Your task to perform on an android device: delete browsing data in the chrome app Image 0: 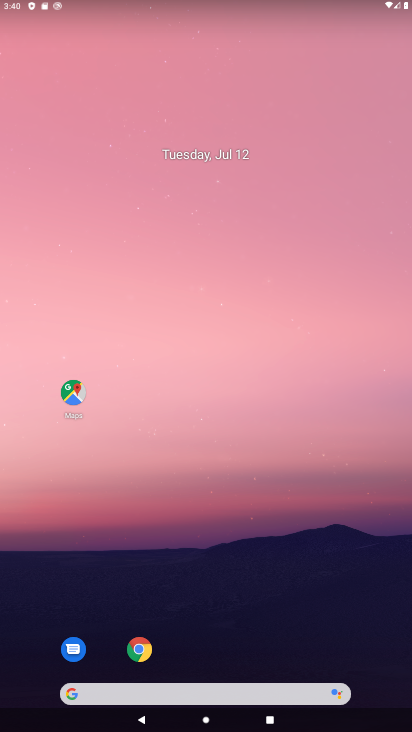
Step 0: click (139, 643)
Your task to perform on an android device: delete browsing data in the chrome app Image 1: 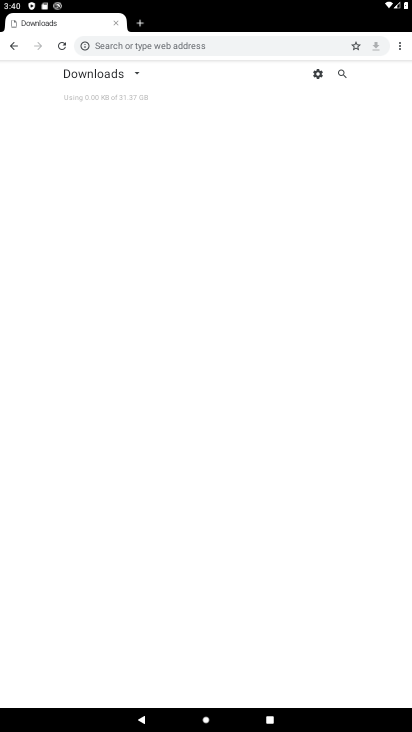
Step 1: click (398, 47)
Your task to perform on an android device: delete browsing data in the chrome app Image 2: 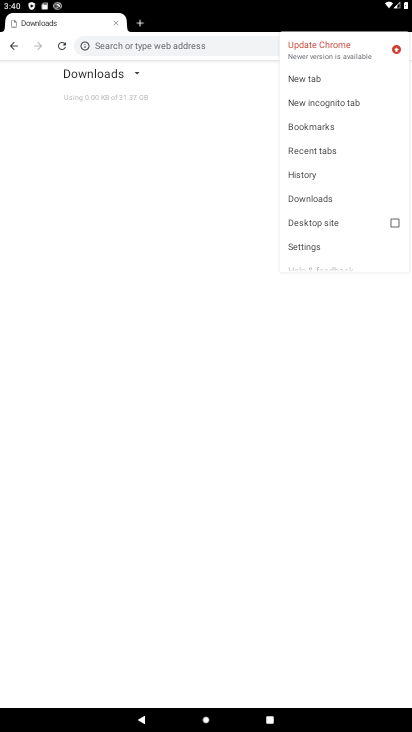
Step 2: click (316, 173)
Your task to perform on an android device: delete browsing data in the chrome app Image 3: 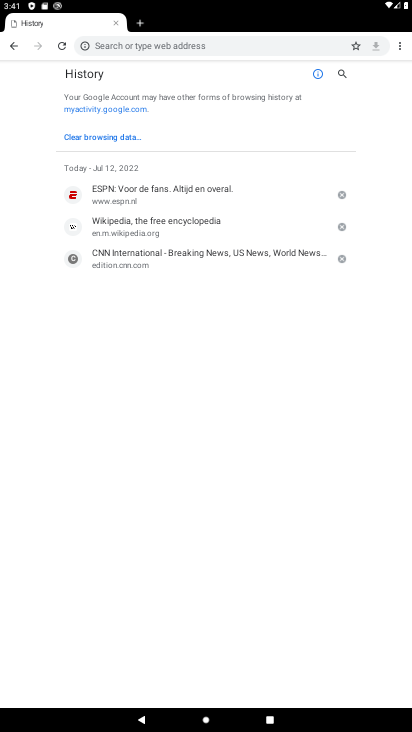
Step 3: click (107, 135)
Your task to perform on an android device: delete browsing data in the chrome app Image 4: 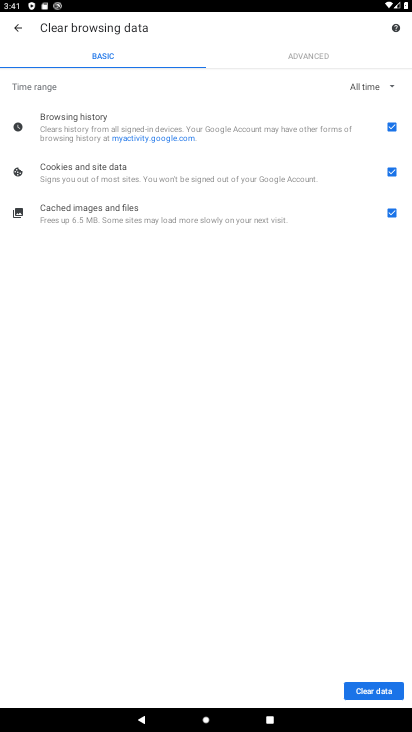
Step 4: click (373, 688)
Your task to perform on an android device: delete browsing data in the chrome app Image 5: 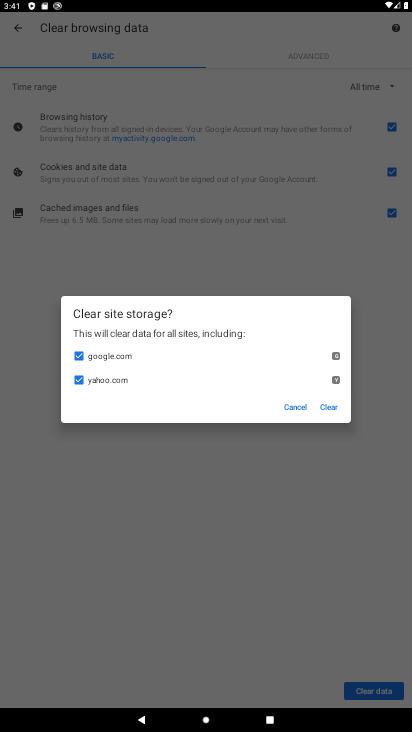
Step 5: click (325, 410)
Your task to perform on an android device: delete browsing data in the chrome app Image 6: 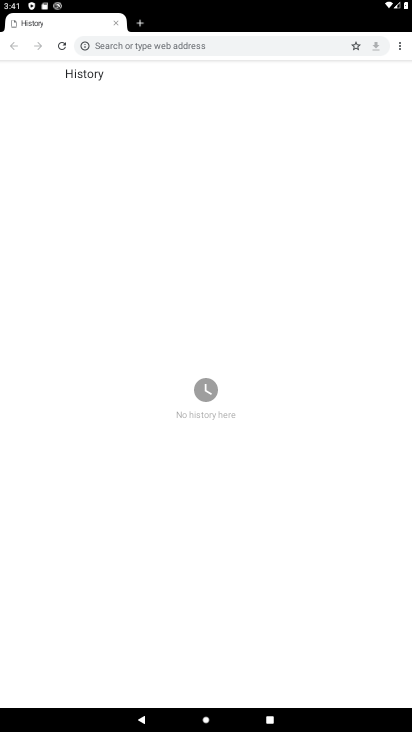
Step 6: task complete